Your task to perform on an android device: Open the map Image 0: 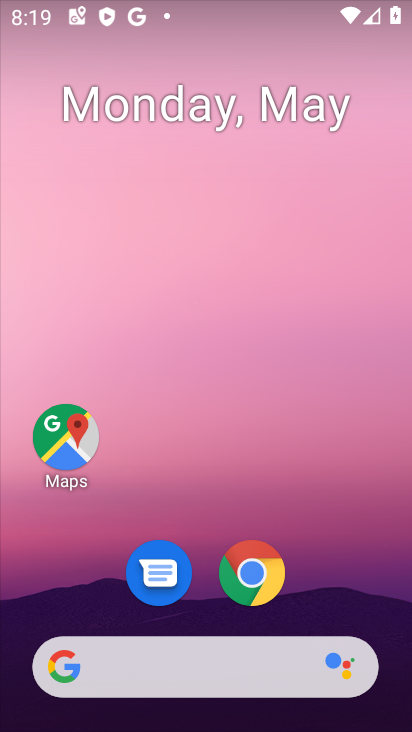
Step 0: drag from (216, 707) to (240, 241)
Your task to perform on an android device: Open the map Image 1: 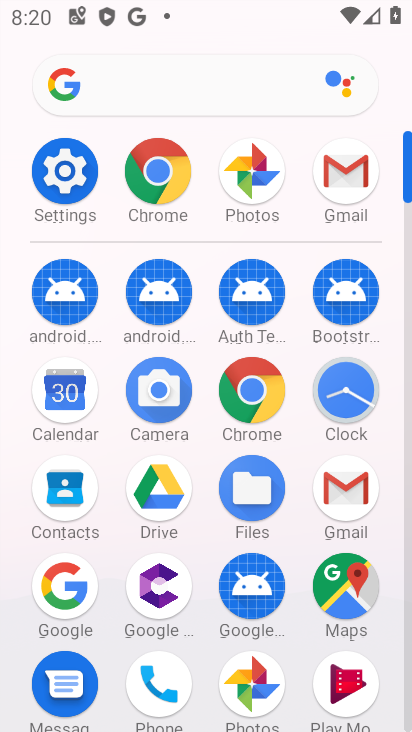
Step 1: click (342, 601)
Your task to perform on an android device: Open the map Image 2: 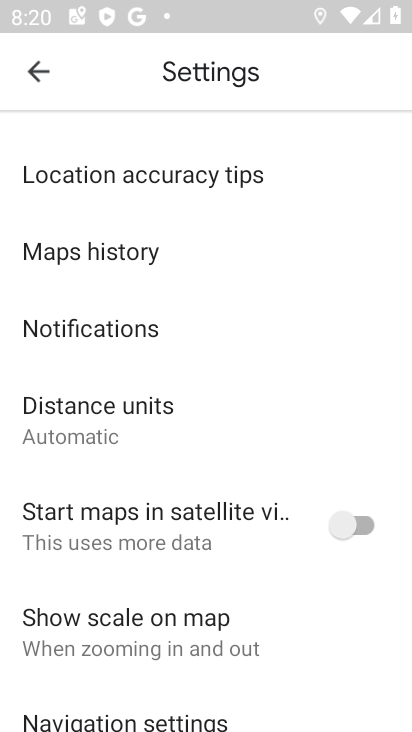
Step 2: click (40, 67)
Your task to perform on an android device: Open the map Image 3: 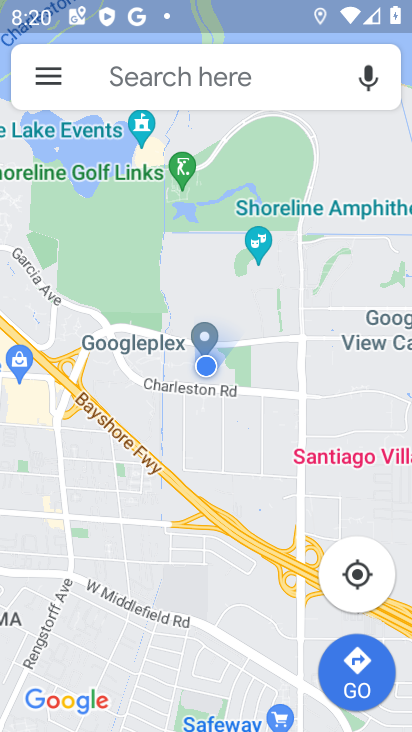
Step 3: task complete